Your task to perform on an android device: Show me popular videos on Youtube Image 0: 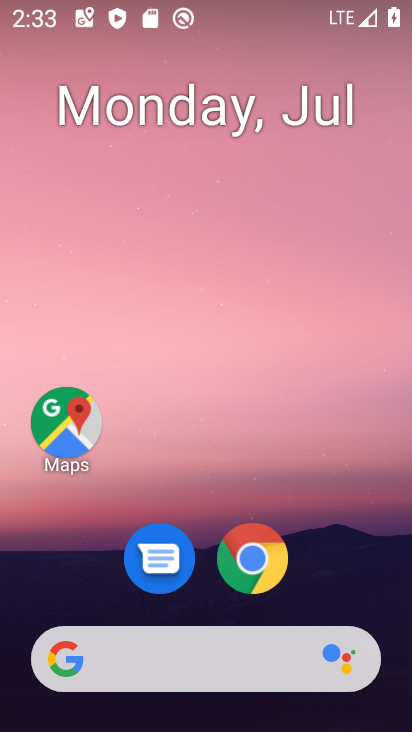
Step 0: press home button
Your task to perform on an android device: Show me popular videos on Youtube Image 1: 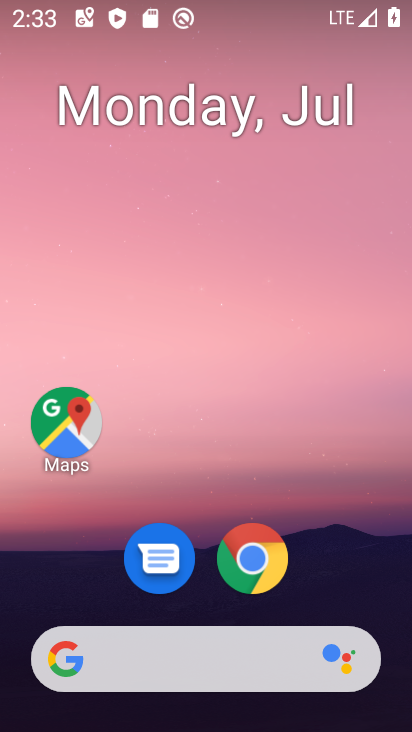
Step 1: drag from (367, 583) to (345, 93)
Your task to perform on an android device: Show me popular videos on Youtube Image 2: 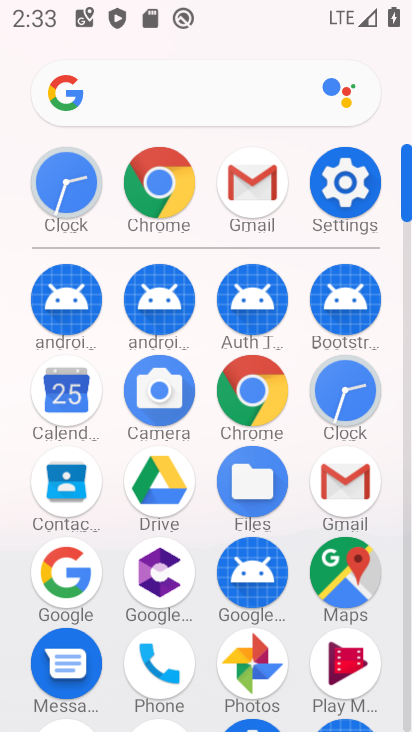
Step 2: drag from (391, 549) to (397, 308)
Your task to perform on an android device: Show me popular videos on Youtube Image 3: 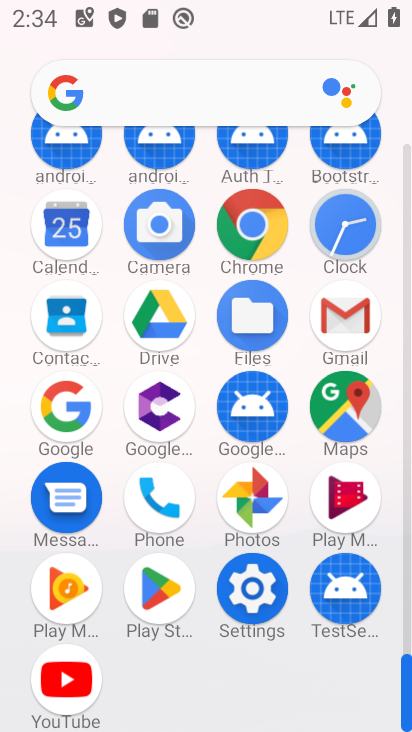
Step 3: click (70, 679)
Your task to perform on an android device: Show me popular videos on Youtube Image 4: 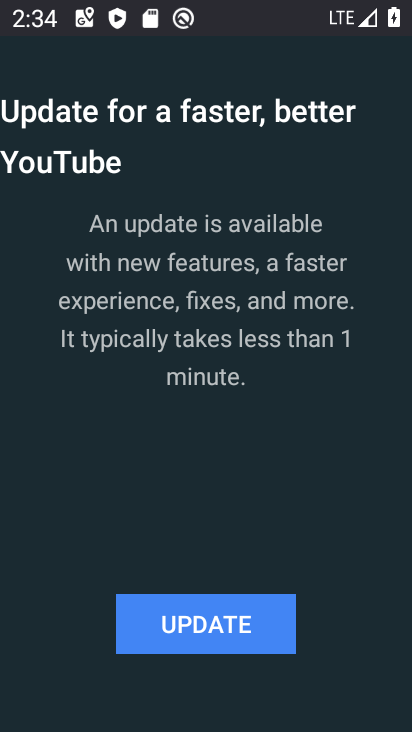
Step 4: click (246, 628)
Your task to perform on an android device: Show me popular videos on Youtube Image 5: 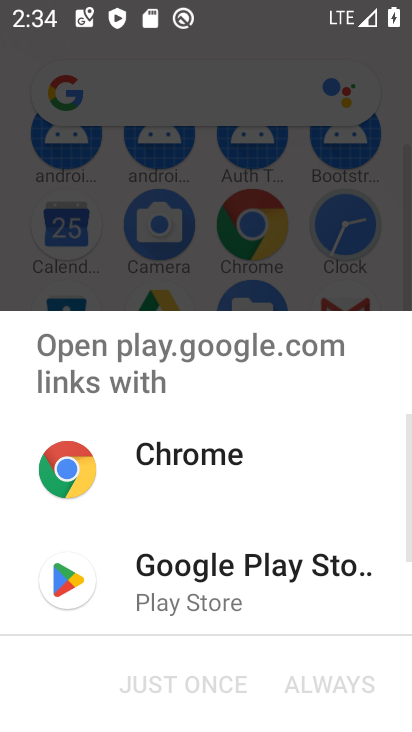
Step 5: click (193, 590)
Your task to perform on an android device: Show me popular videos on Youtube Image 6: 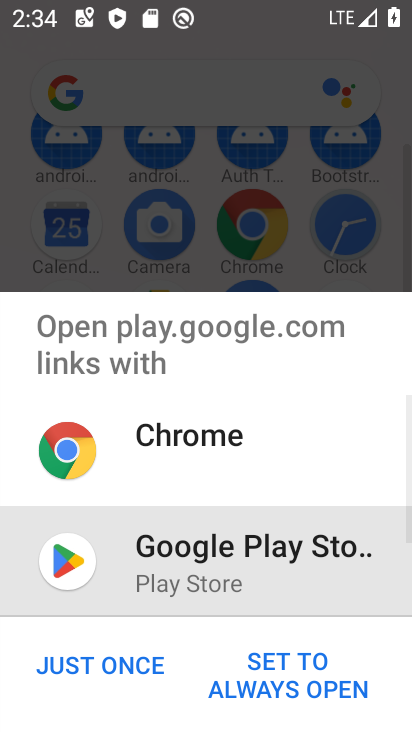
Step 6: click (120, 667)
Your task to perform on an android device: Show me popular videos on Youtube Image 7: 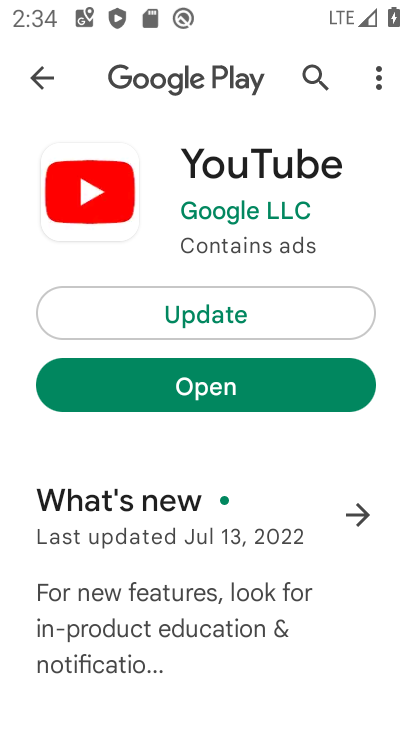
Step 7: click (309, 319)
Your task to perform on an android device: Show me popular videos on Youtube Image 8: 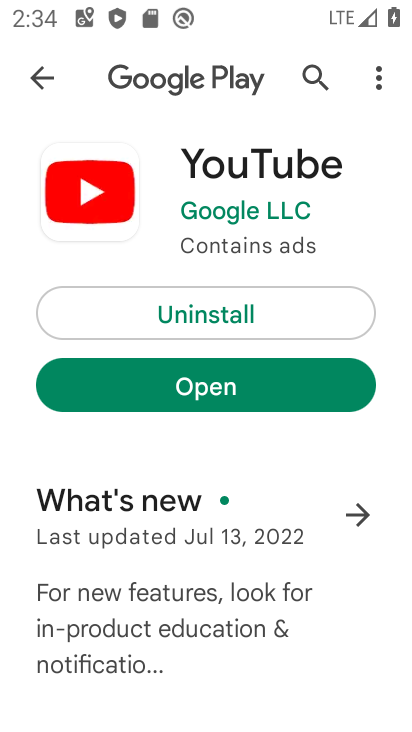
Step 8: click (356, 385)
Your task to perform on an android device: Show me popular videos on Youtube Image 9: 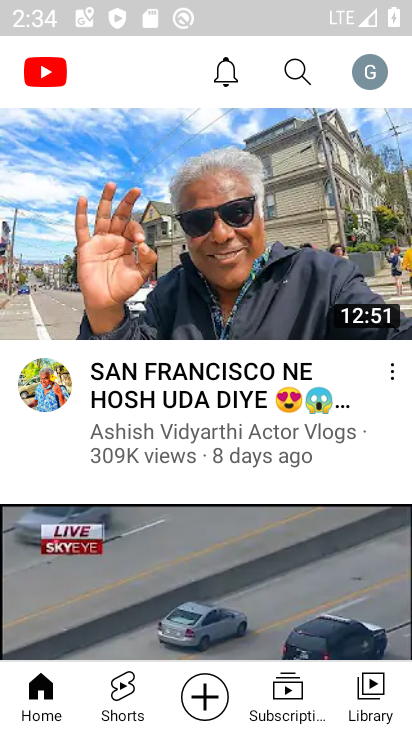
Step 9: task complete